Your task to perform on an android device: What's the weather today? Image 0: 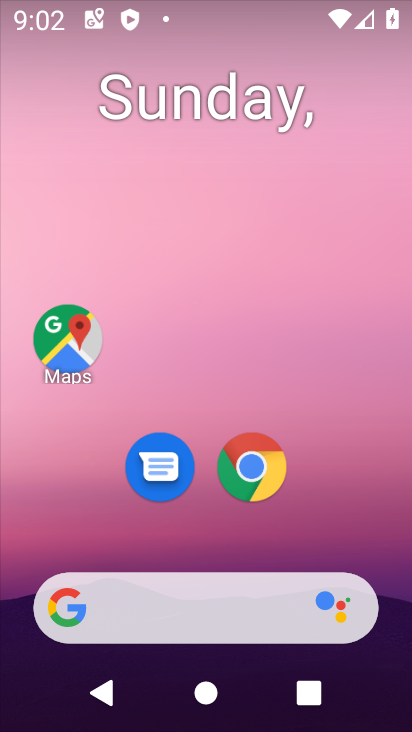
Step 0: click (261, 460)
Your task to perform on an android device: What's the weather today? Image 1: 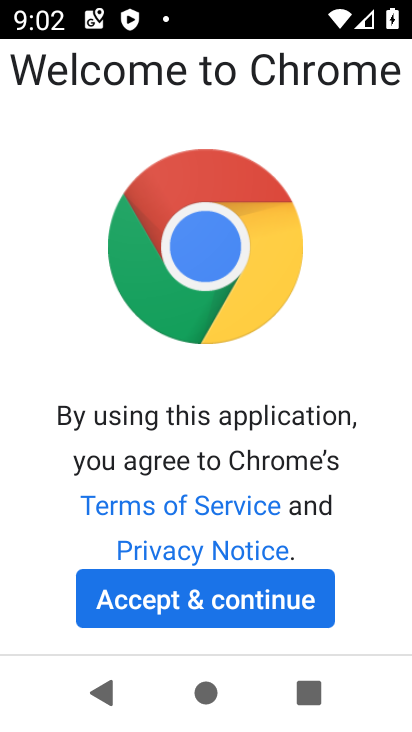
Step 1: drag from (223, 700) to (293, 697)
Your task to perform on an android device: What's the weather today? Image 2: 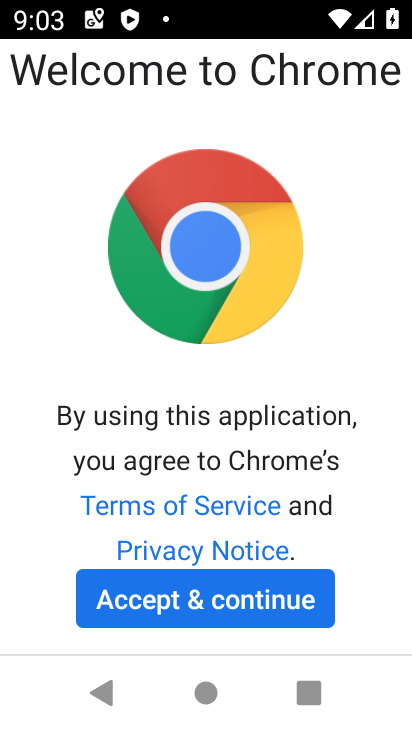
Step 2: click (249, 607)
Your task to perform on an android device: What's the weather today? Image 3: 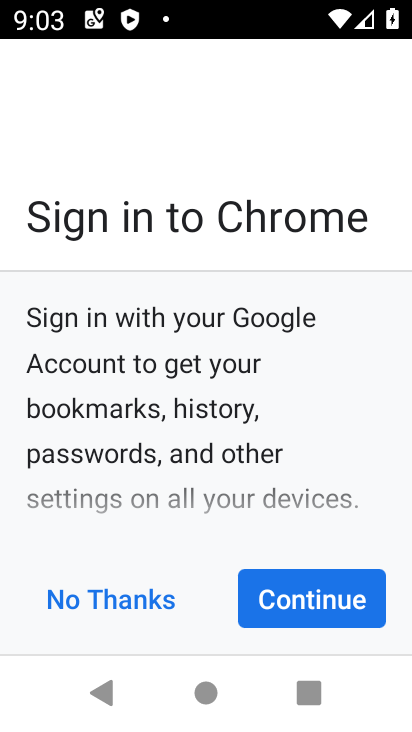
Step 3: click (267, 602)
Your task to perform on an android device: What's the weather today? Image 4: 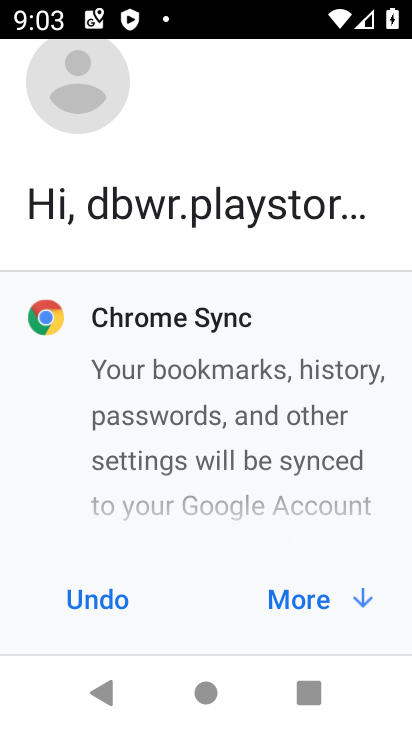
Step 4: click (285, 602)
Your task to perform on an android device: What's the weather today? Image 5: 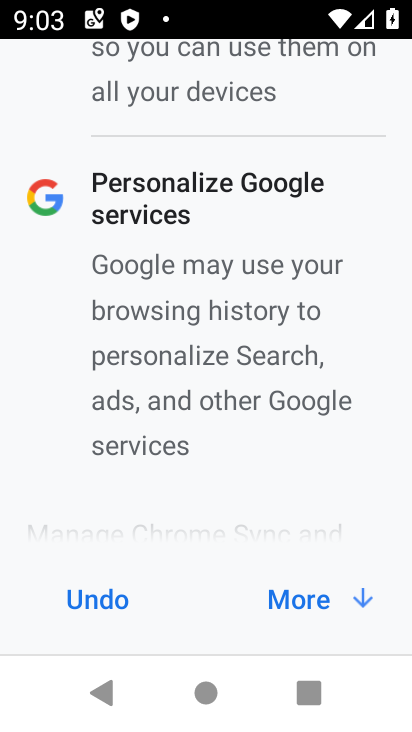
Step 5: click (285, 602)
Your task to perform on an android device: What's the weather today? Image 6: 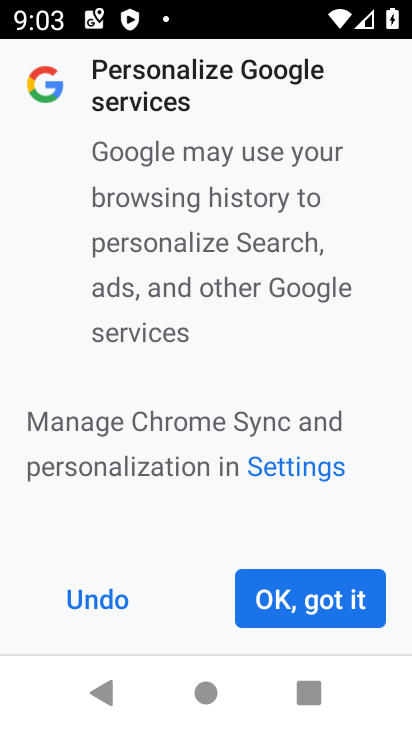
Step 6: click (285, 602)
Your task to perform on an android device: What's the weather today? Image 7: 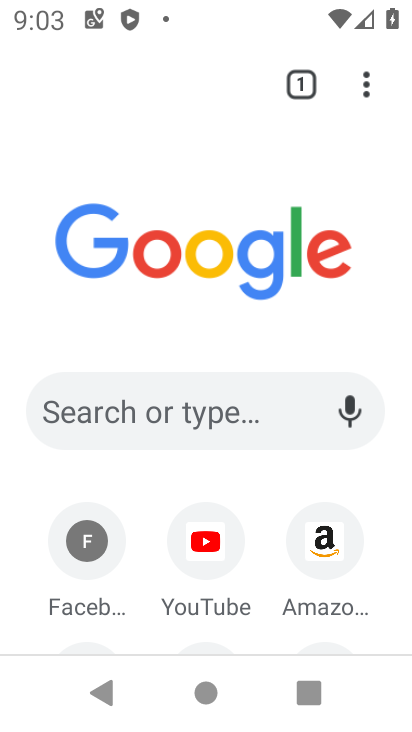
Step 7: click (166, 423)
Your task to perform on an android device: What's the weather today? Image 8: 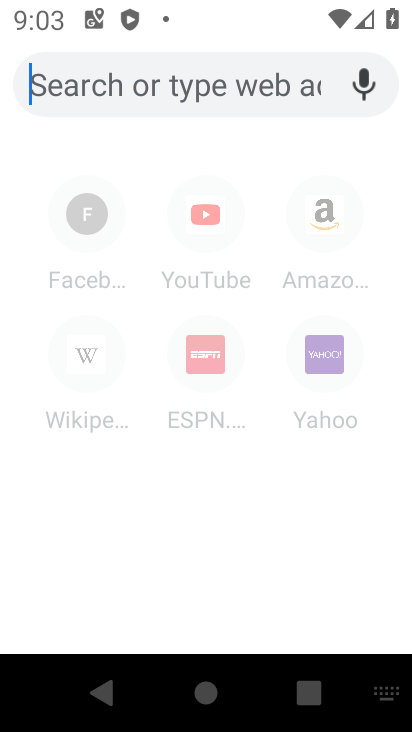
Step 8: type "What's the weather today?"
Your task to perform on an android device: What's the weather today? Image 9: 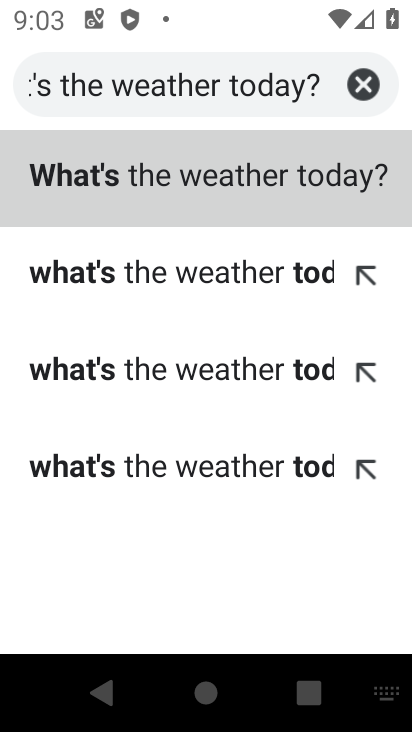
Step 9: click (273, 174)
Your task to perform on an android device: What's the weather today? Image 10: 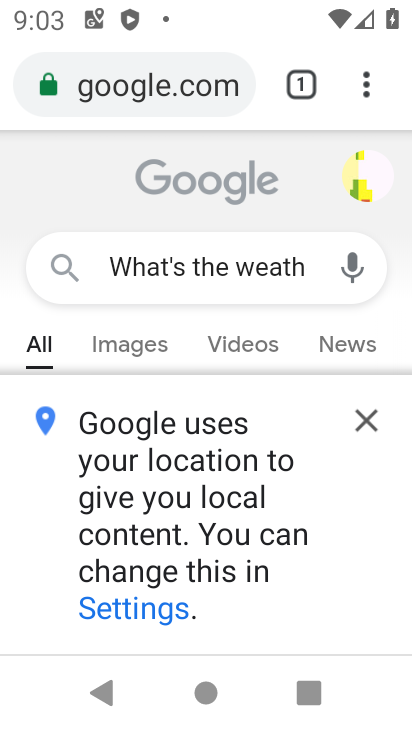
Step 10: click (367, 425)
Your task to perform on an android device: What's the weather today? Image 11: 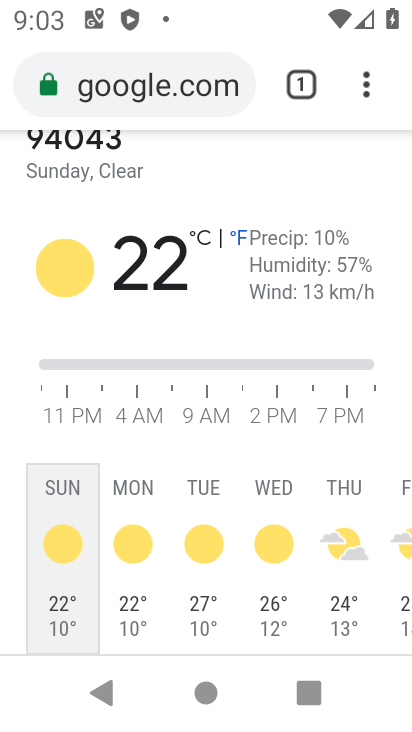
Step 11: click (130, 526)
Your task to perform on an android device: What's the weather today? Image 12: 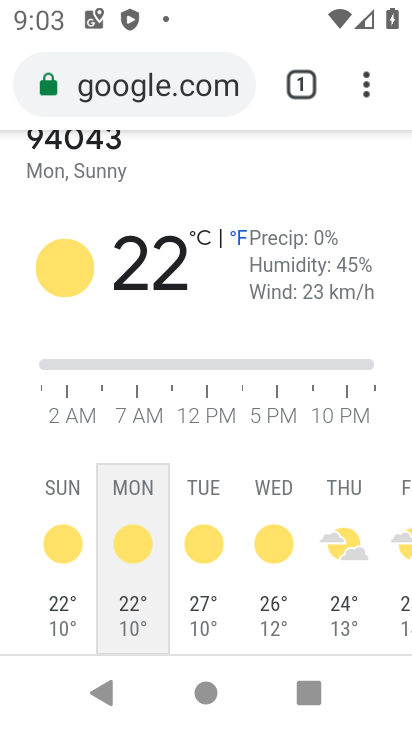
Step 12: task complete